Your task to perform on an android device: turn on the 24-hour format for clock Image 0: 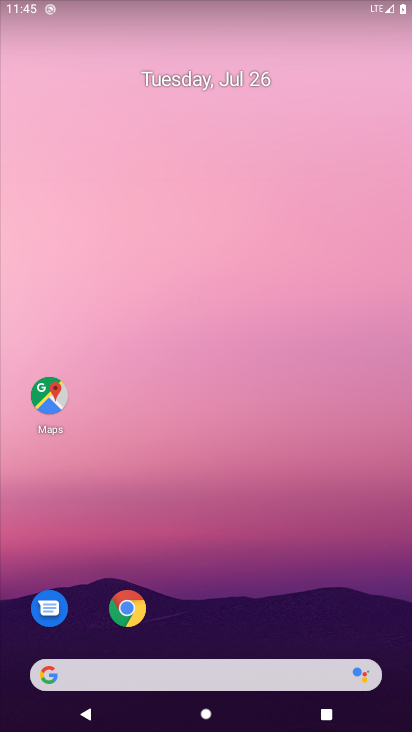
Step 0: press home button
Your task to perform on an android device: turn on the 24-hour format for clock Image 1: 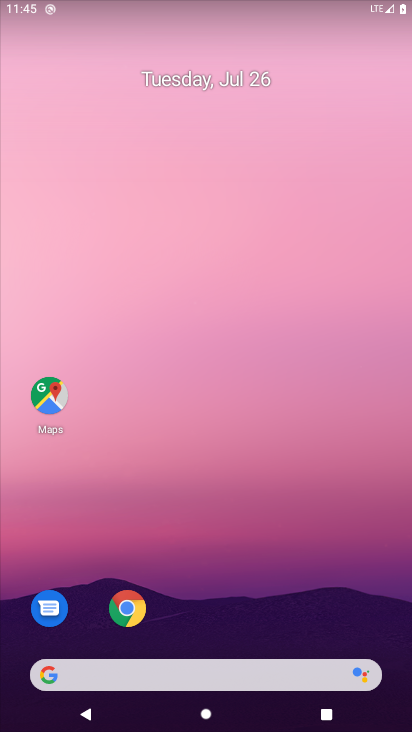
Step 1: drag from (276, 603) to (247, 140)
Your task to perform on an android device: turn on the 24-hour format for clock Image 2: 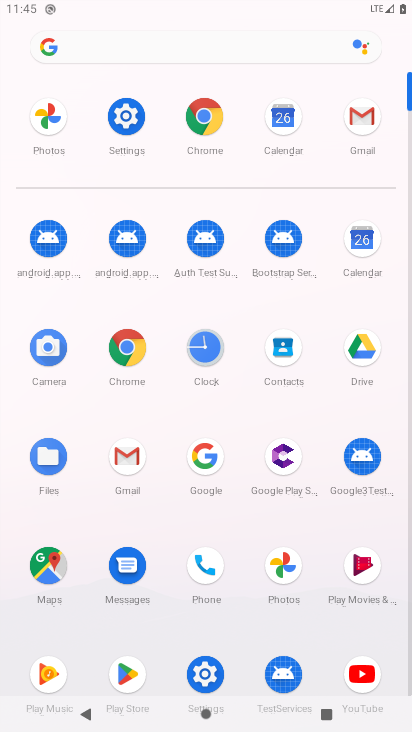
Step 2: click (204, 336)
Your task to perform on an android device: turn on the 24-hour format for clock Image 3: 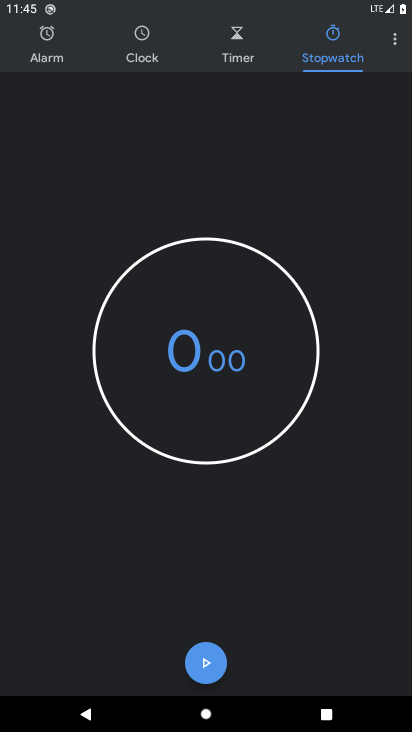
Step 3: click (393, 36)
Your task to perform on an android device: turn on the 24-hour format for clock Image 4: 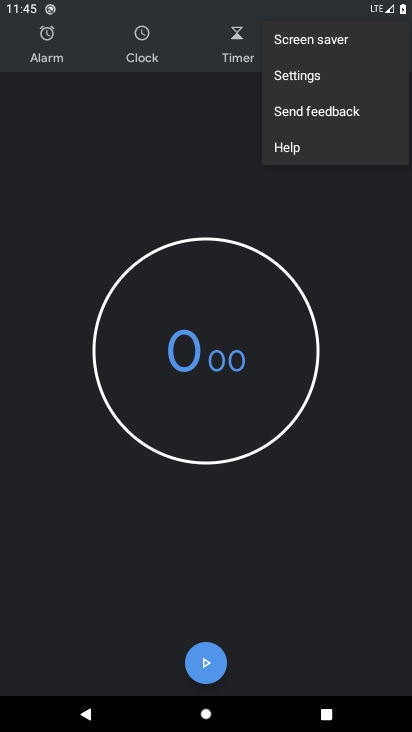
Step 4: click (316, 72)
Your task to perform on an android device: turn on the 24-hour format for clock Image 5: 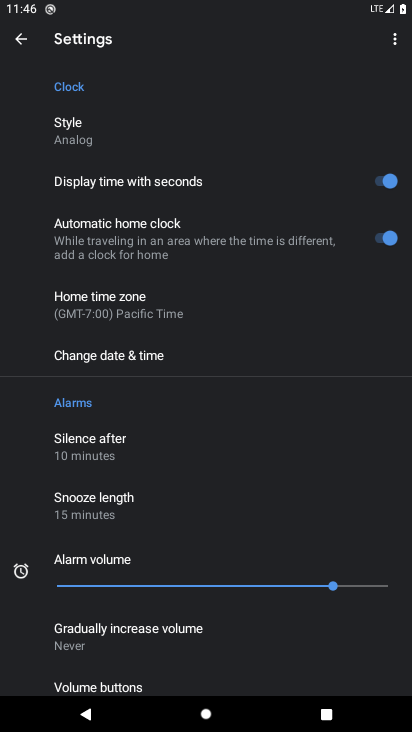
Step 5: click (121, 353)
Your task to perform on an android device: turn on the 24-hour format for clock Image 6: 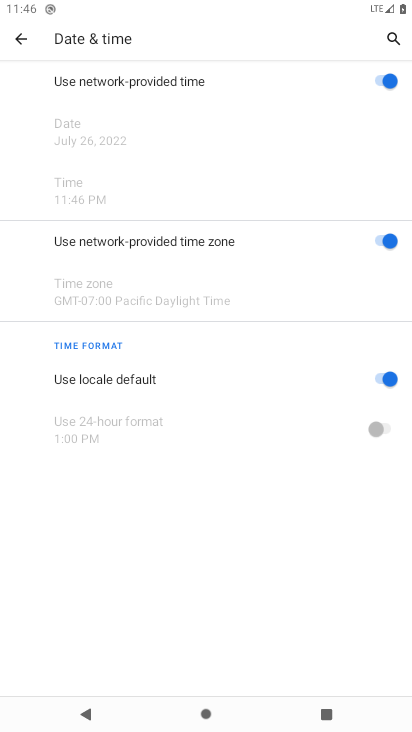
Step 6: click (388, 370)
Your task to perform on an android device: turn on the 24-hour format for clock Image 7: 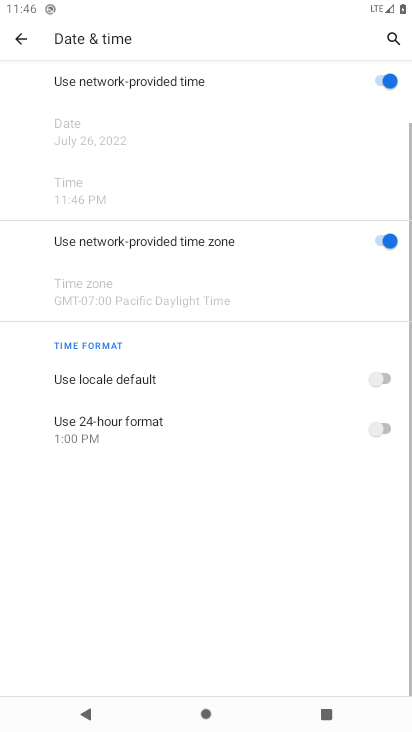
Step 7: click (374, 430)
Your task to perform on an android device: turn on the 24-hour format for clock Image 8: 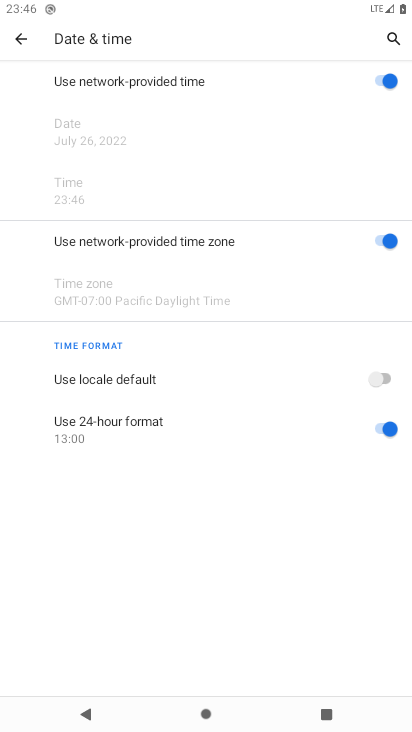
Step 8: task complete